Your task to perform on an android device: Open Wikipedia Image 0: 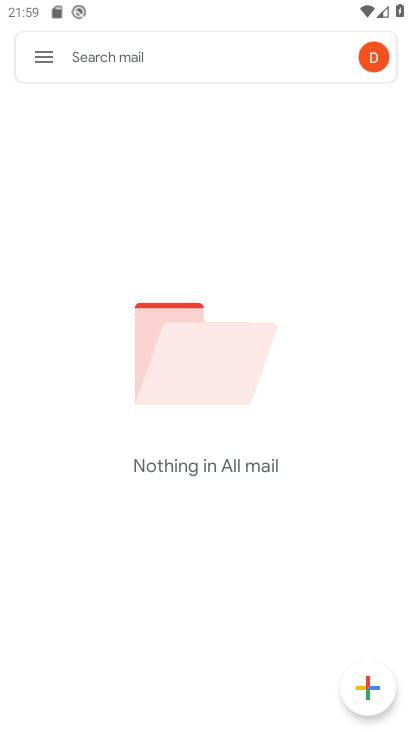
Step 0: press home button
Your task to perform on an android device: Open Wikipedia Image 1: 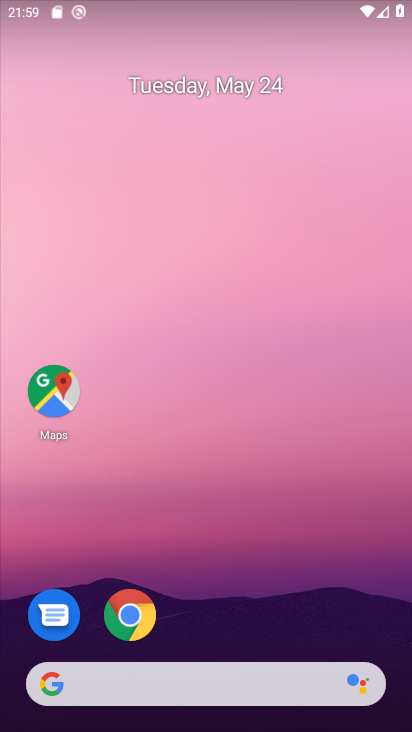
Step 1: drag from (173, 582) to (197, 236)
Your task to perform on an android device: Open Wikipedia Image 2: 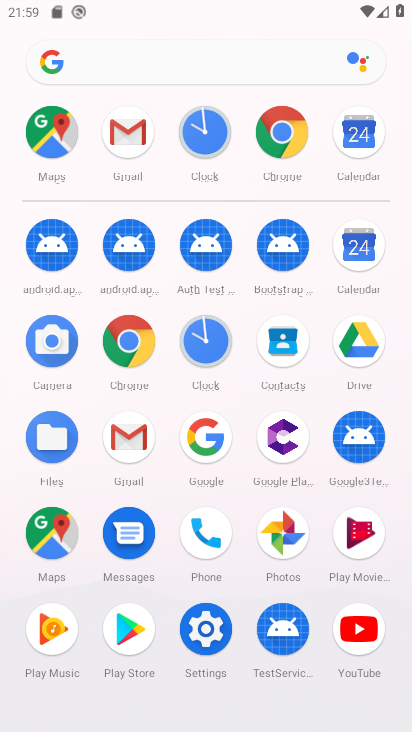
Step 2: click (129, 337)
Your task to perform on an android device: Open Wikipedia Image 3: 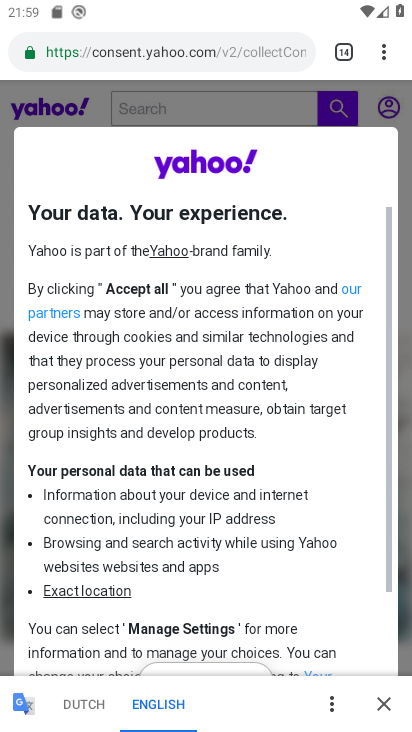
Step 3: click (390, 56)
Your task to perform on an android device: Open Wikipedia Image 4: 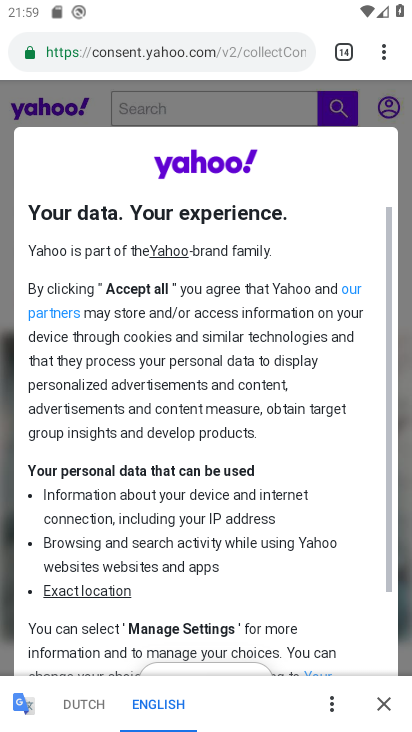
Step 4: click (379, 48)
Your task to perform on an android device: Open Wikipedia Image 5: 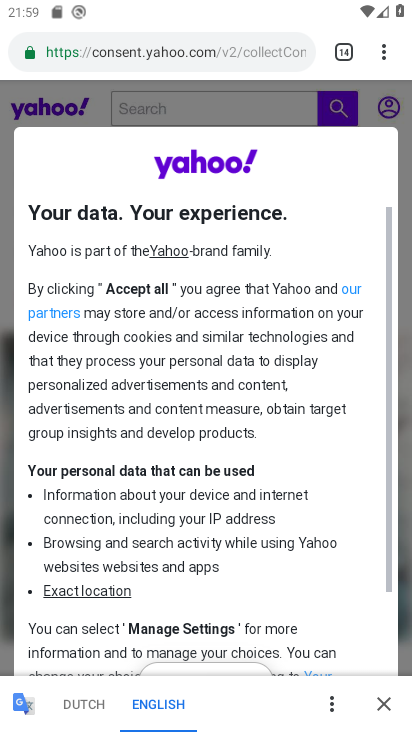
Step 5: click (374, 38)
Your task to perform on an android device: Open Wikipedia Image 6: 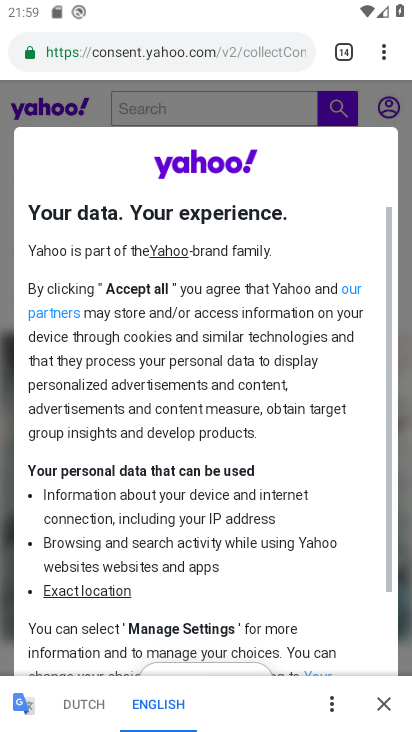
Step 6: click (387, 51)
Your task to perform on an android device: Open Wikipedia Image 7: 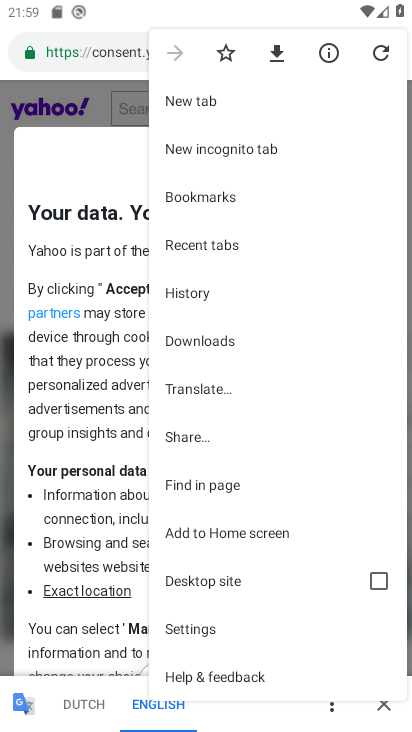
Step 7: click (233, 94)
Your task to perform on an android device: Open Wikipedia Image 8: 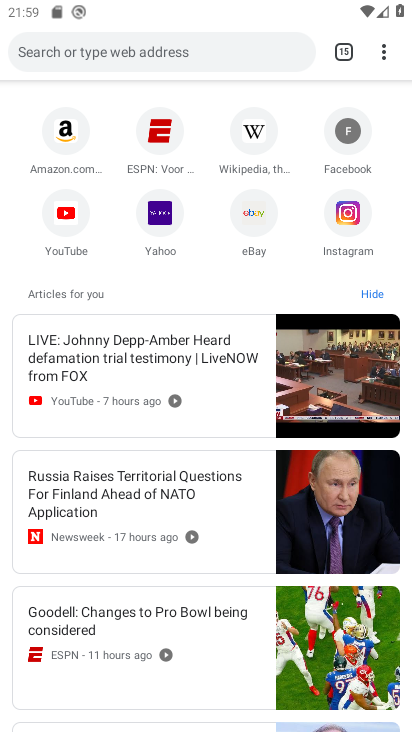
Step 8: click (265, 128)
Your task to perform on an android device: Open Wikipedia Image 9: 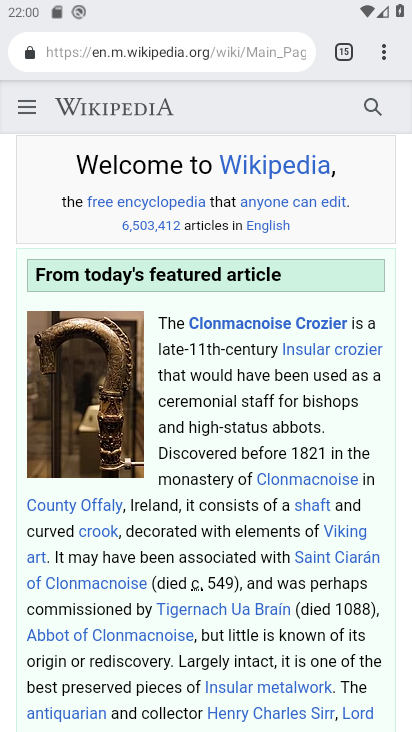
Step 9: task complete